Your task to perform on an android device: turn on translation in the chrome app Image 0: 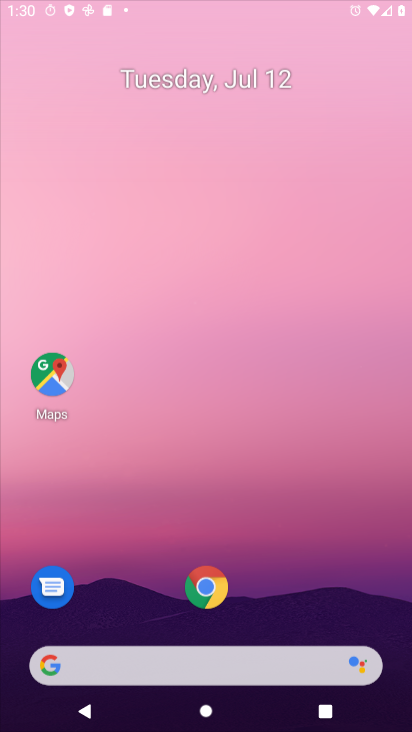
Step 0: press home button
Your task to perform on an android device: turn on translation in the chrome app Image 1: 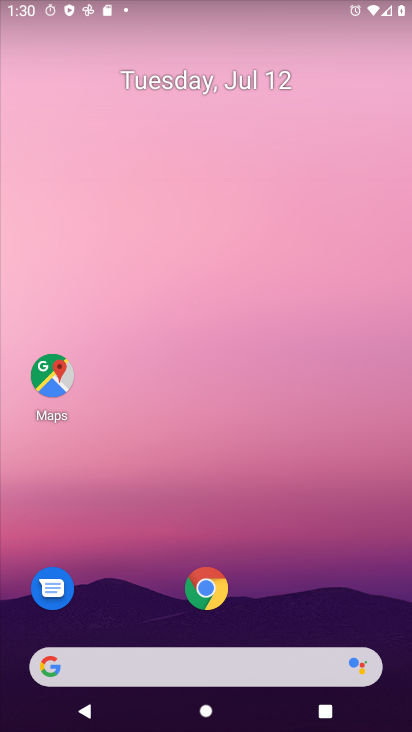
Step 1: click (211, 600)
Your task to perform on an android device: turn on translation in the chrome app Image 2: 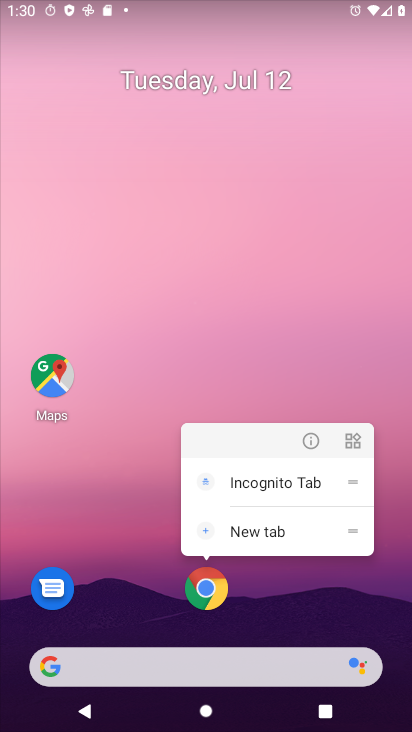
Step 2: click (199, 583)
Your task to perform on an android device: turn on translation in the chrome app Image 3: 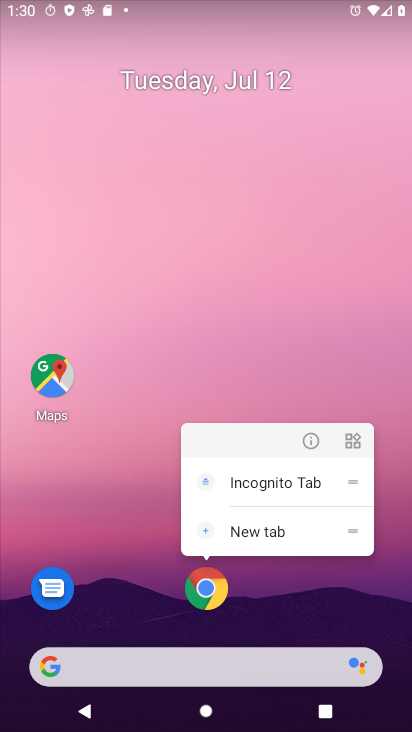
Step 3: click (200, 585)
Your task to perform on an android device: turn on translation in the chrome app Image 4: 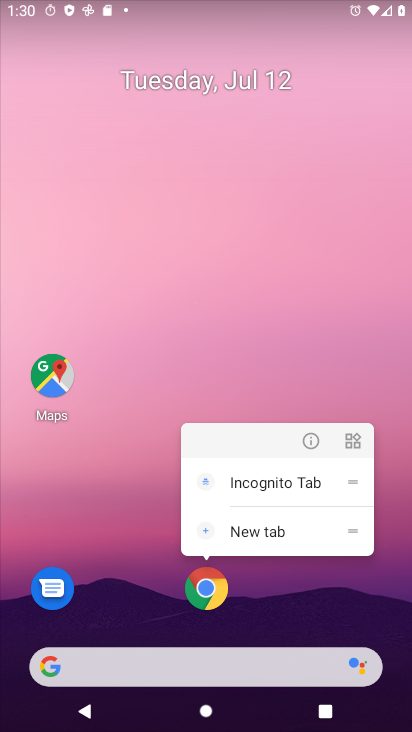
Step 4: click (200, 581)
Your task to perform on an android device: turn on translation in the chrome app Image 5: 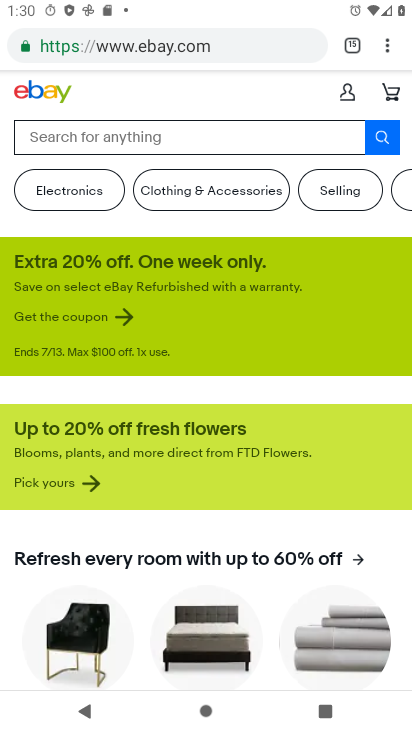
Step 5: drag from (388, 33) to (262, 552)
Your task to perform on an android device: turn on translation in the chrome app Image 6: 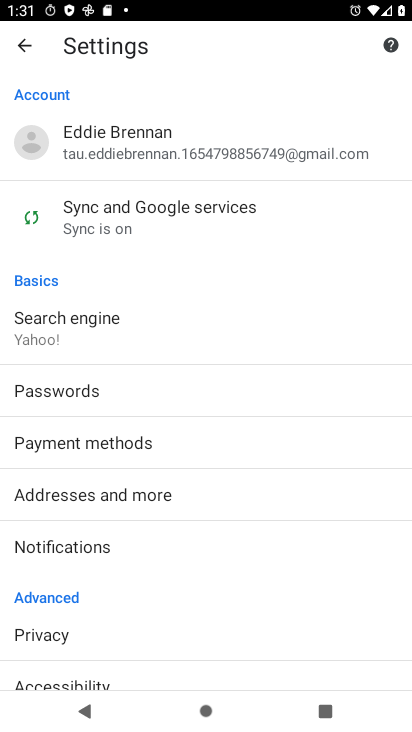
Step 6: drag from (200, 622) to (307, 252)
Your task to perform on an android device: turn on translation in the chrome app Image 7: 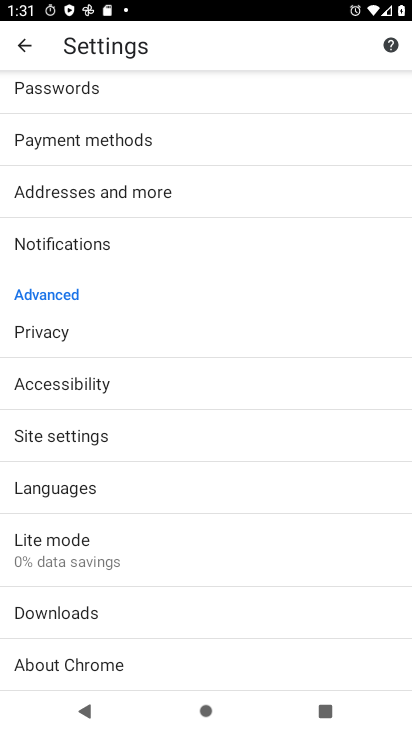
Step 7: click (94, 481)
Your task to perform on an android device: turn on translation in the chrome app Image 8: 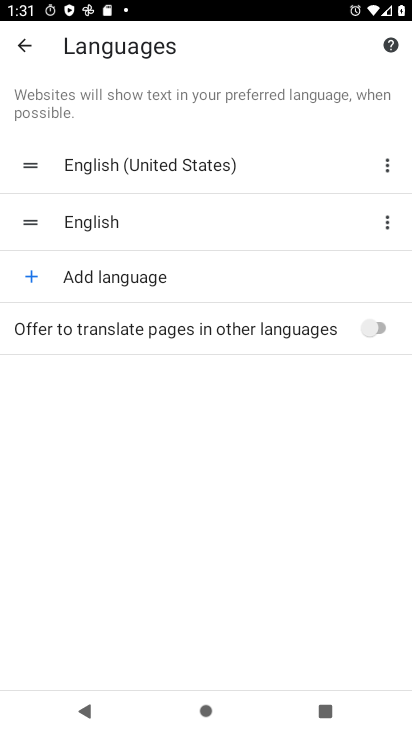
Step 8: click (377, 327)
Your task to perform on an android device: turn on translation in the chrome app Image 9: 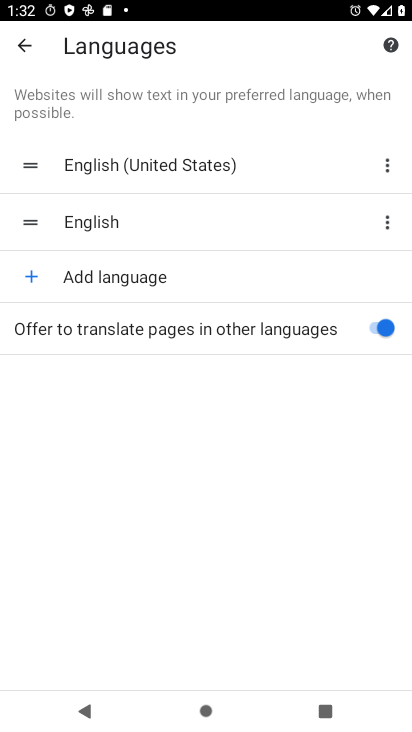
Step 9: task complete